Your task to perform on an android device: turn off airplane mode Image 0: 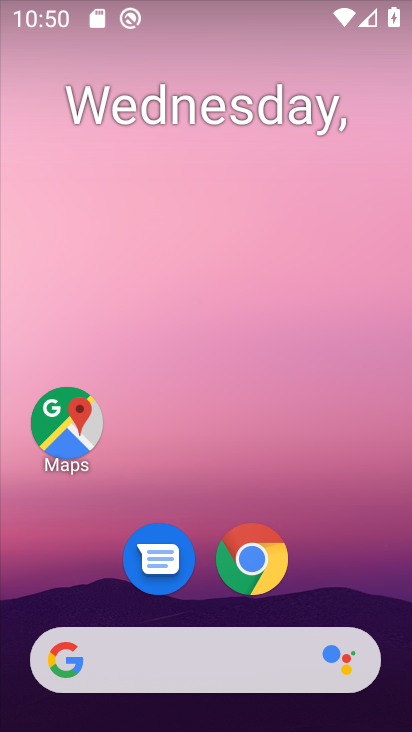
Step 0: press back button
Your task to perform on an android device: turn off airplane mode Image 1: 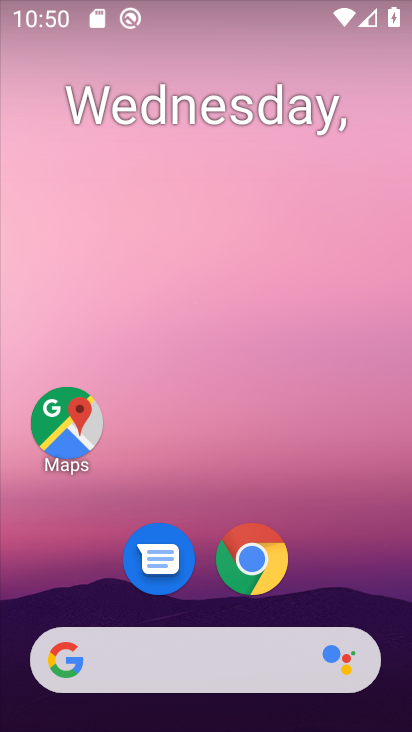
Step 1: drag from (314, 698) to (363, 117)
Your task to perform on an android device: turn off airplane mode Image 2: 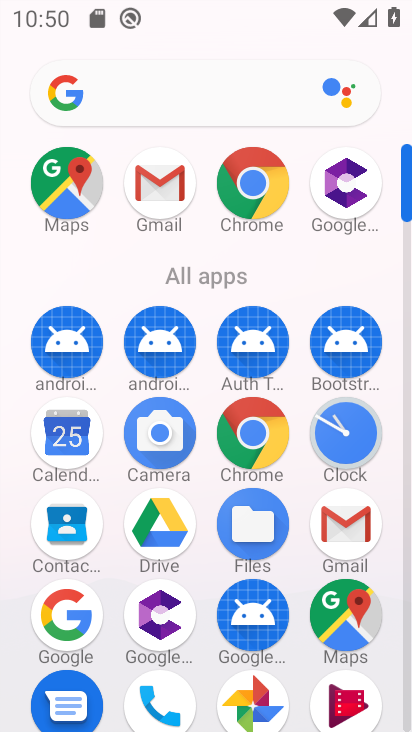
Step 2: drag from (115, 478) to (142, 351)
Your task to perform on an android device: turn off airplane mode Image 3: 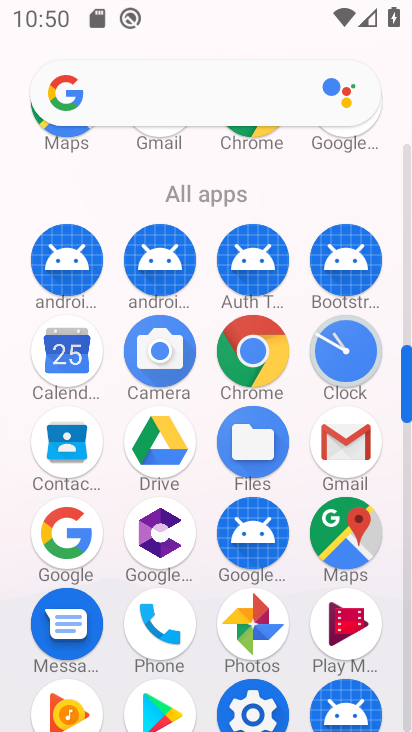
Step 3: click (245, 691)
Your task to perform on an android device: turn off airplane mode Image 4: 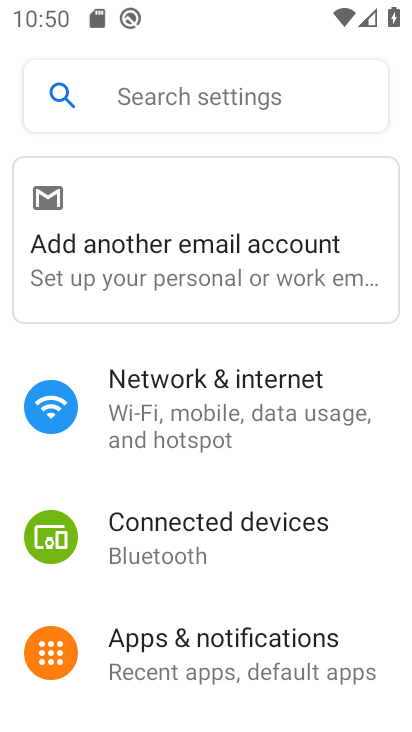
Step 4: click (216, 432)
Your task to perform on an android device: turn off airplane mode Image 5: 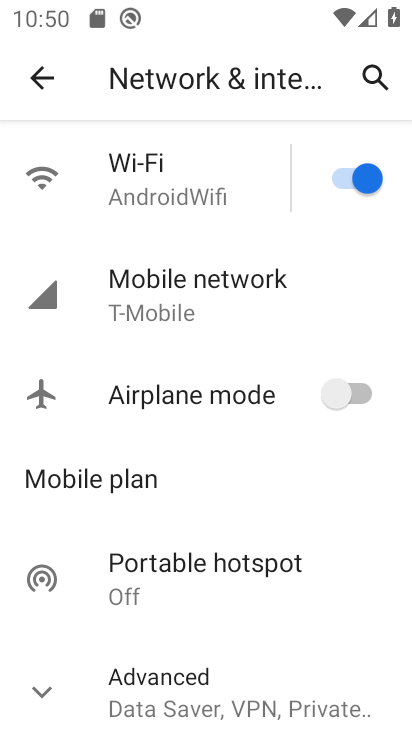
Step 5: click (342, 379)
Your task to perform on an android device: turn off airplane mode Image 6: 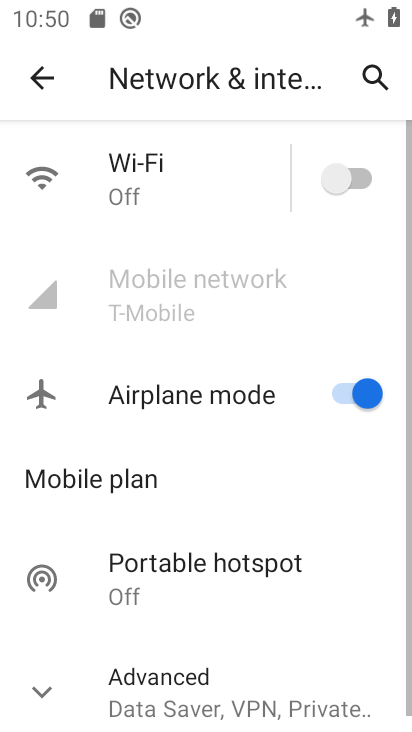
Step 6: click (342, 379)
Your task to perform on an android device: turn off airplane mode Image 7: 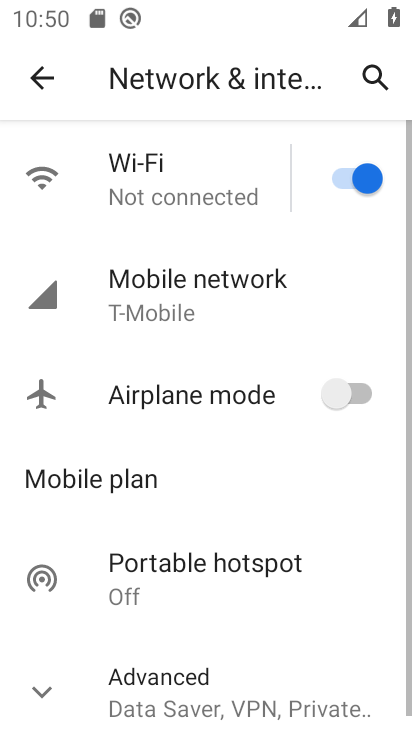
Step 7: task complete